Your task to perform on an android device: turn off notifications settings in the gmail app Image 0: 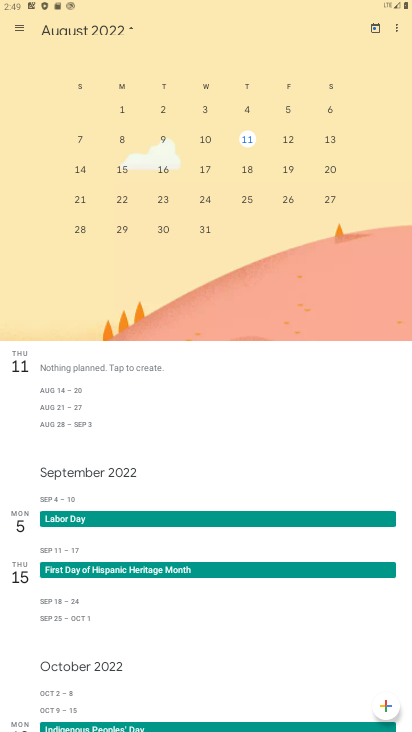
Step 0: drag from (244, 333) to (258, 265)
Your task to perform on an android device: turn off notifications settings in the gmail app Image 1: 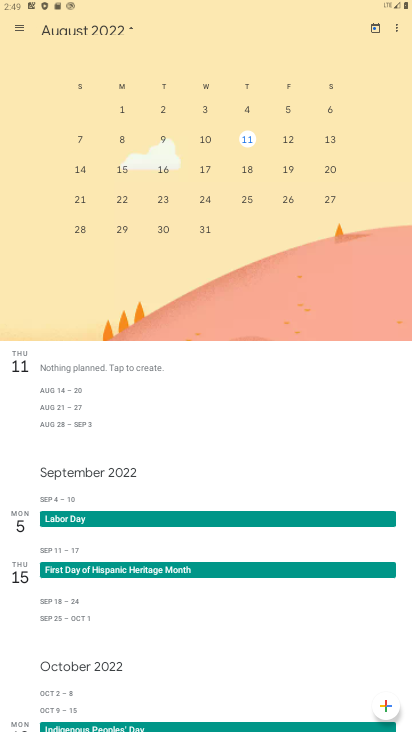
Step 1: press home button
Your task to perform on an android device: turn off notifications settings in the gmail app Image 2: 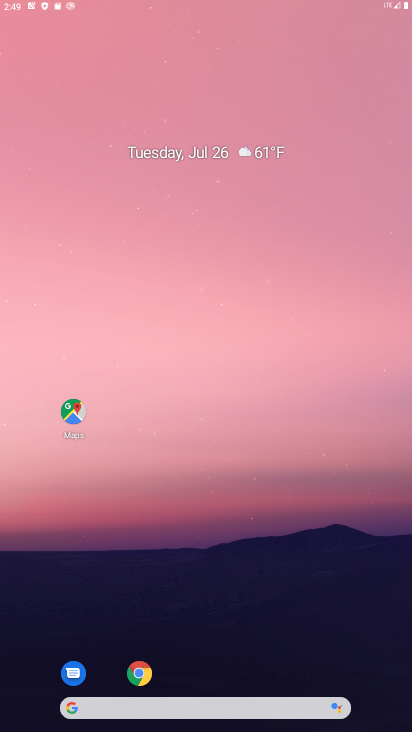
Step 2: drag from (223, 622) to (308, 269)
Your task to perform on an android device: turn off notifications settings in the gmail app Image 3: 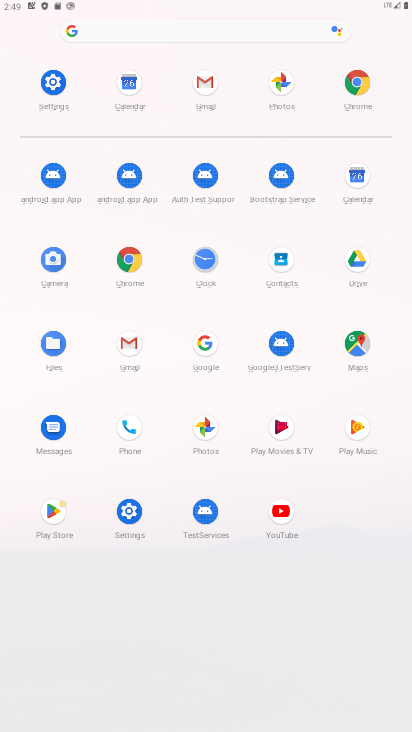
Step 3: click (132, 344)
Your task to perform on an android device: turn off notifications settings in the gmail app Image 4: 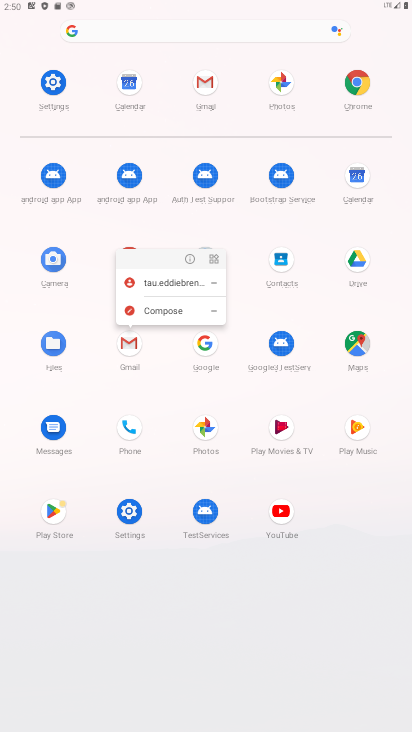
Step 4: click (186, 264)
Your task to perform on an android device: turn off notifications settings in the gmail app Image 5: 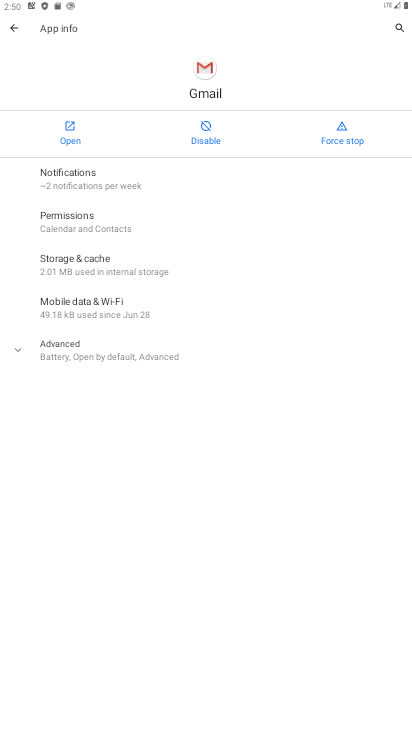
Step 5: click (76, 126)
Your task to perform on an android device: turn off notifications settings in the gmail app Image 6: 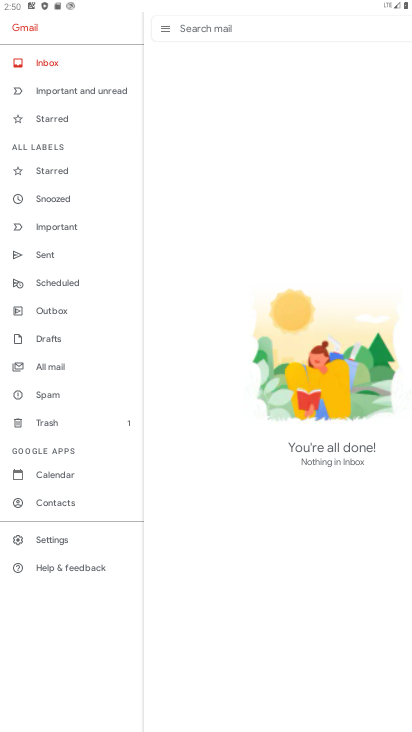
Step 6: click (46, 529)
Your task to perform on an android device: turn off notifications settings in the gmail app Image 7: 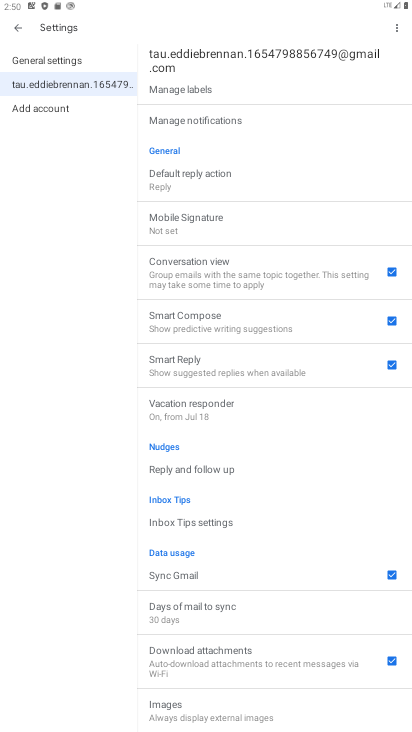
Step 7: click (226, 114)
Your task to perform on an android device: turn off notifications settings in the gmail app Image 8: 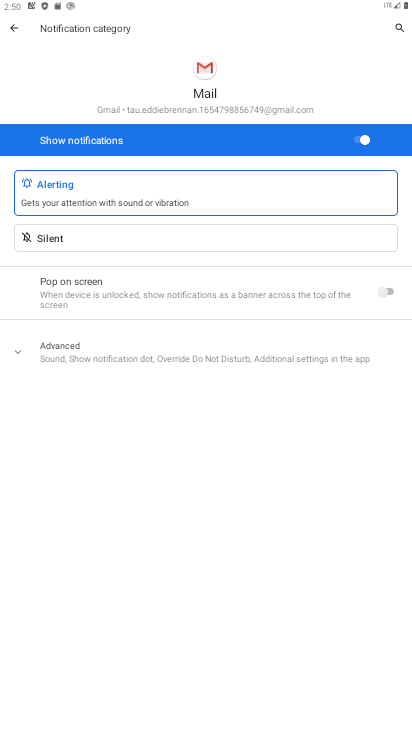
Step 8: drag from (260, 286) to (252, 613)
Your task to perform on an android device: turn off notifications settings in the gmail app Image 9: 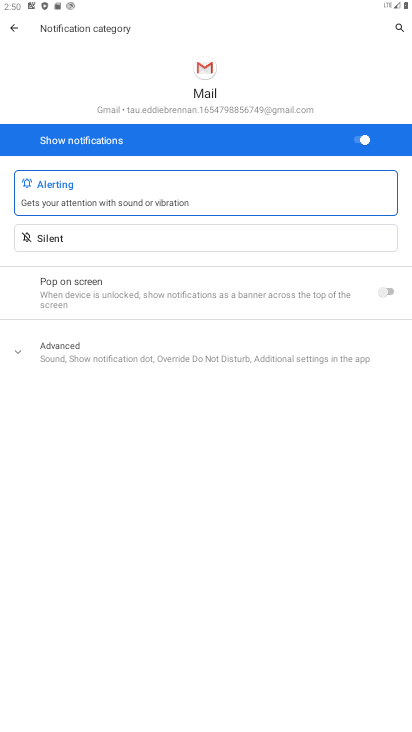
Step 9: click (364, 125)
Your task to perform on an android device: turn off notifications settings in the gmail app Image 10: 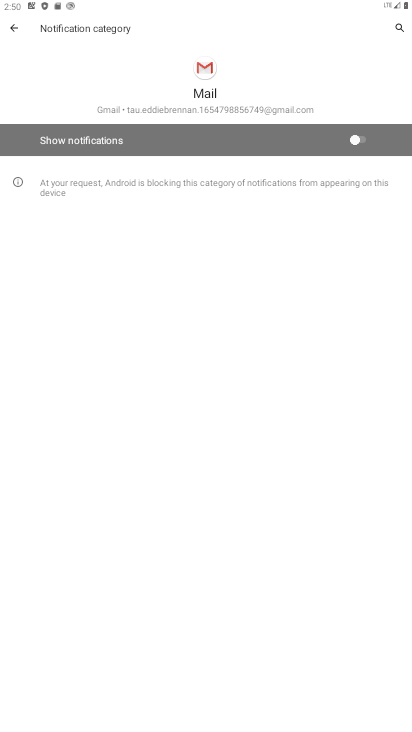
Step 10: task complete